Your task to perform on an android device: turn off javascript in the chrome app Image 0: 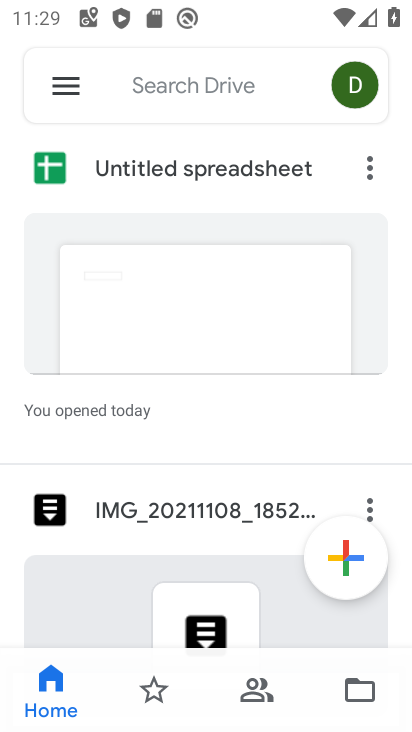
Step 0: press home button
Your task to perform on an android device: turn off javascript in the chrome app Image 1: 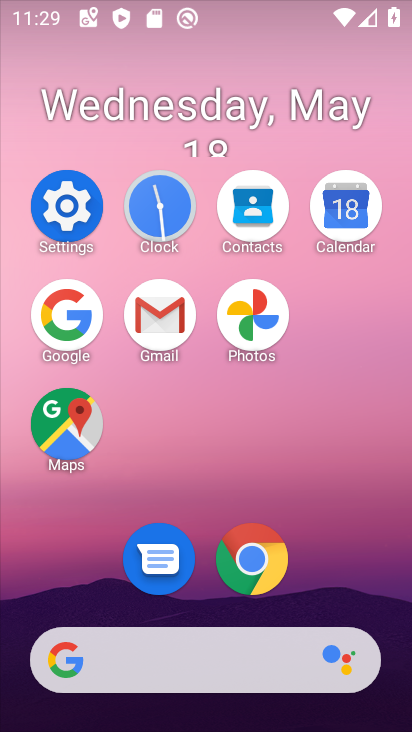
Step 1: click (239, 573)
Your task to perform on an android device: turn off javascript in the chrome app Image 2: 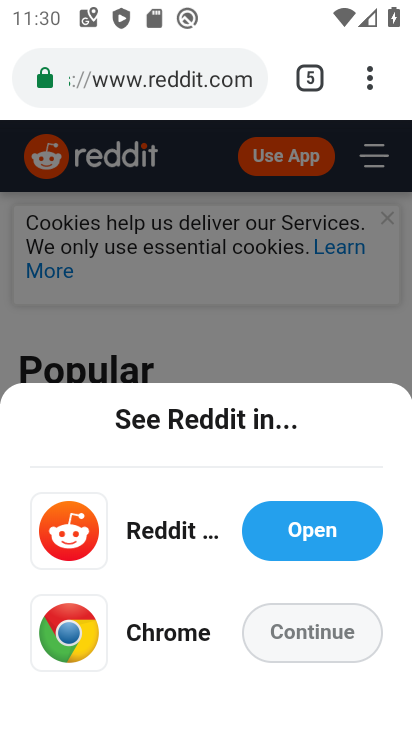
Step 2: click (379, 81)
Your task to perform on an android device: turn off javascript in the chrome app Image 3: 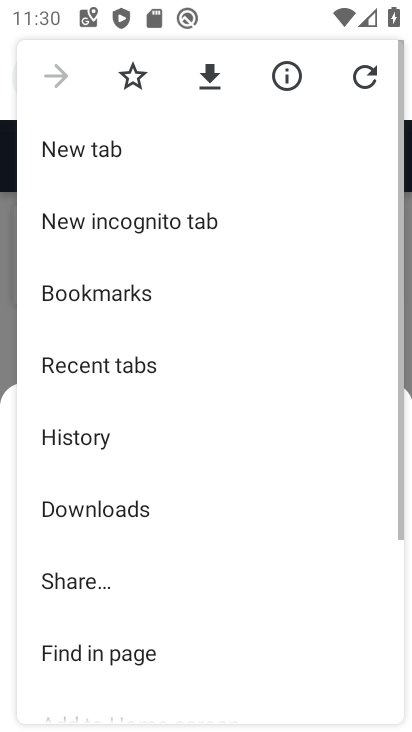
Step 3: drag from (272, 373) to (246, 138)
Your task to perform on an android device: turn off javascript in the chrome app Image 4: 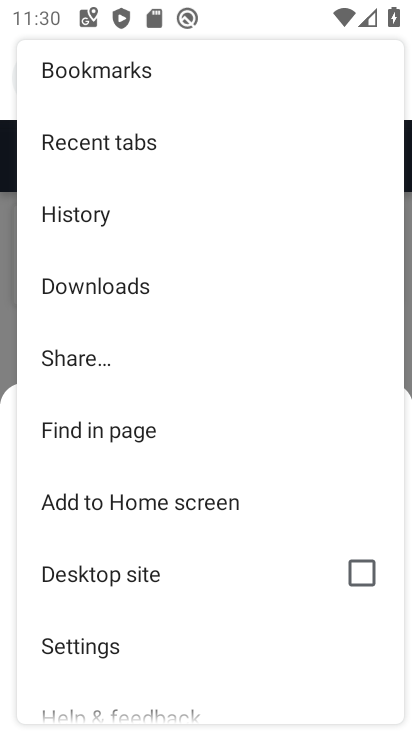
Step 4: click (147, 662)
Your task to perform on an android device: turn off javascript in the chrome app Image 5: 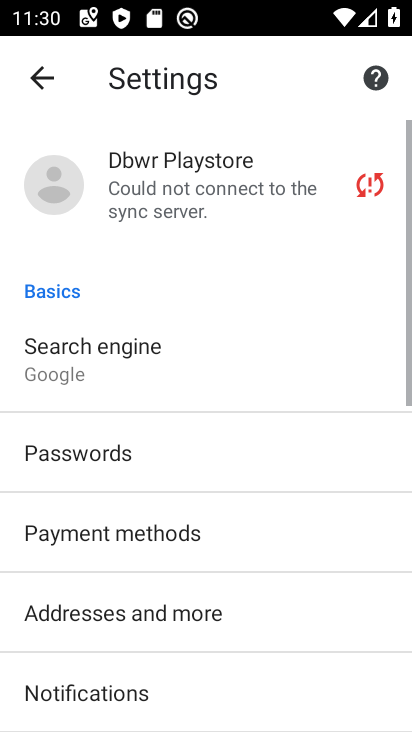
Step 5: drag from (213, 549) to (234, 186)
Your task to perform on an android device: turn off javascript in the chrome app Image 6: 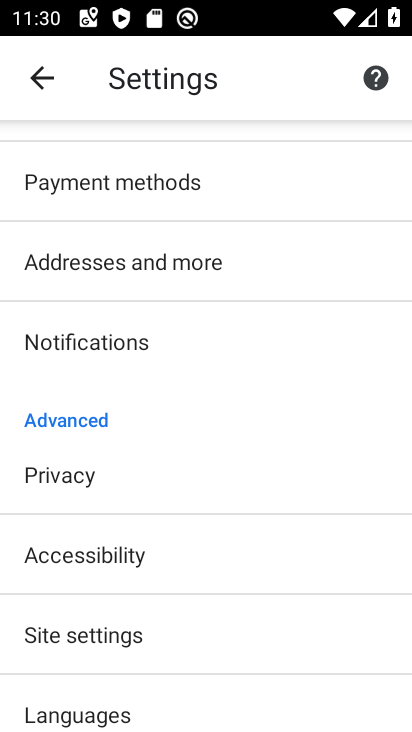
Step 6: click (158, 626)
Your task to perform on an android device: turn off javascript in the chrome app Image 7: 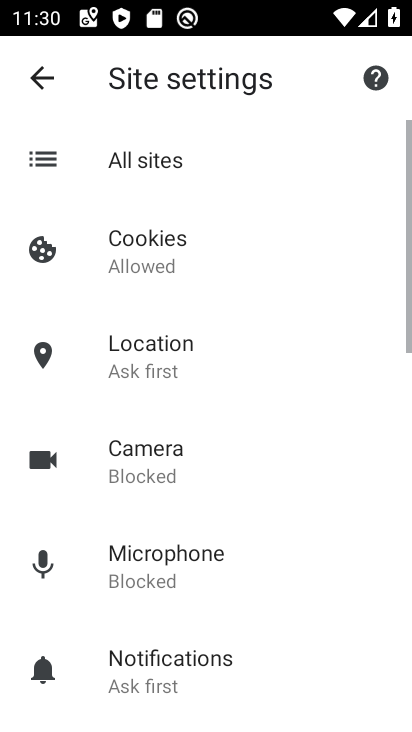
Step 7: drag from (234, 583) to (263, 204)
Your task to perform on an android device: turn off javascript in the chrome app Image 8: 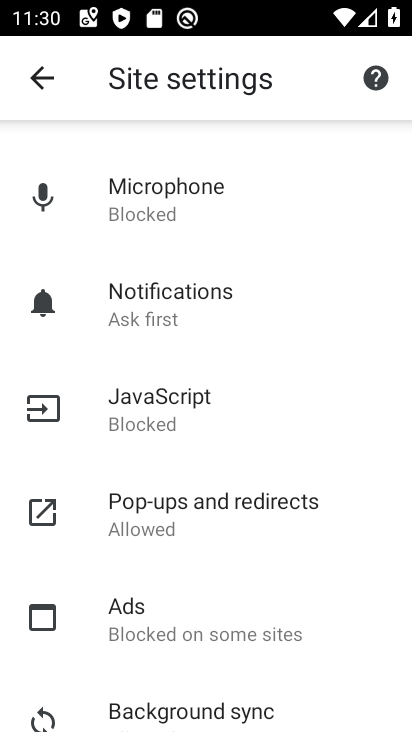
Step 8: click (243, 403)
Your task to perform on an android device: turn off javascript in the chrome app Image 9: 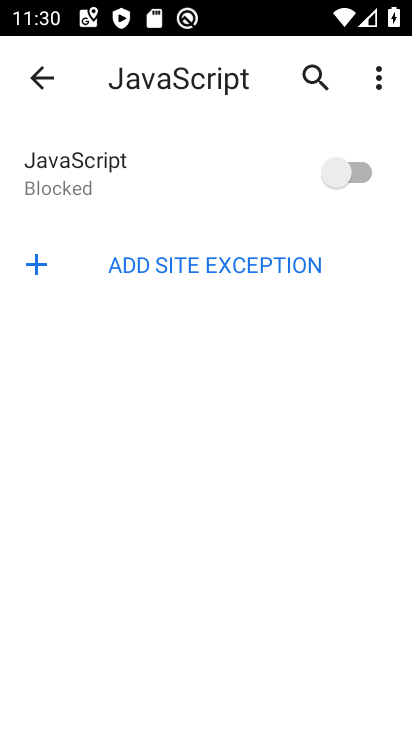
Step 9: task complete